Your task to perform on an android device: Open calendar and show me the third week of next month Image 0: 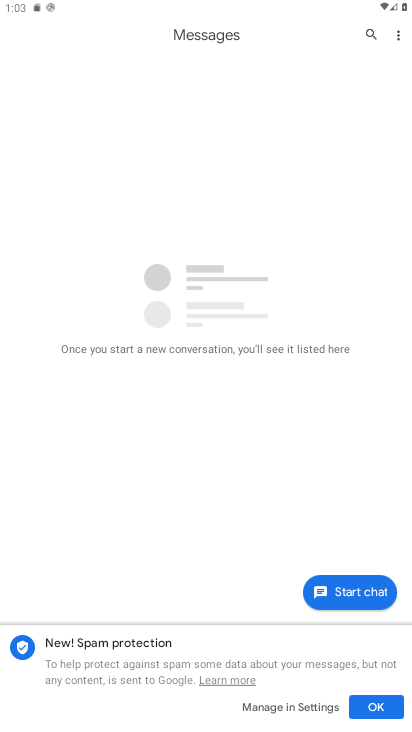
Step 0: press back button
Your task to perform on an android device: Open calendar and show me the third week of next month Image 1: 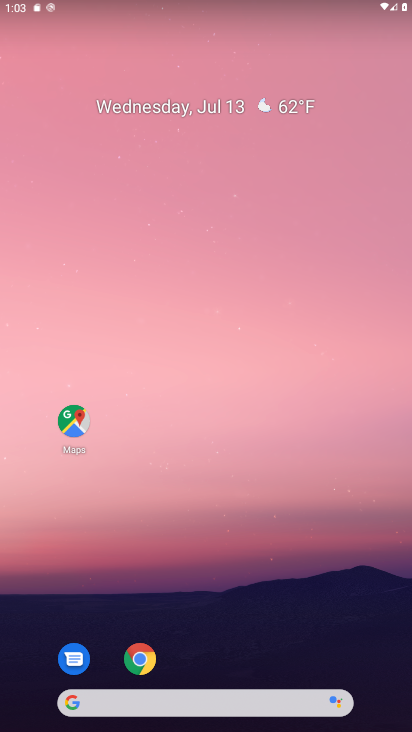
Step 1: click (318, 24)
Your task to perform on an android device: Open calendar and show me the third week of next month Image 2: 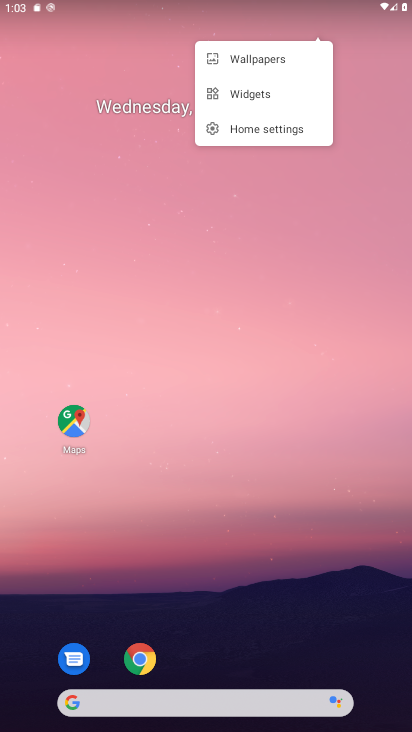
Step 2: click (230, 113)
Your task to perform on an android device: Open calendar and show me the third week of next month Image 3: 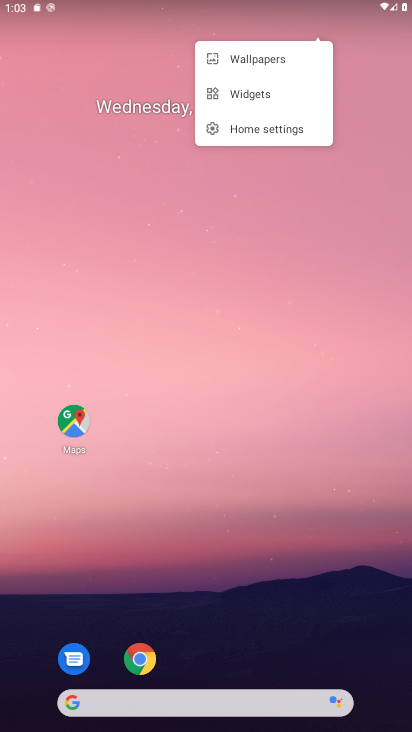
Step 3: drag from (162, 297) to (127, 152)
Your task to perform on an android device: Open calendar and show me the third week of next month Image 4: 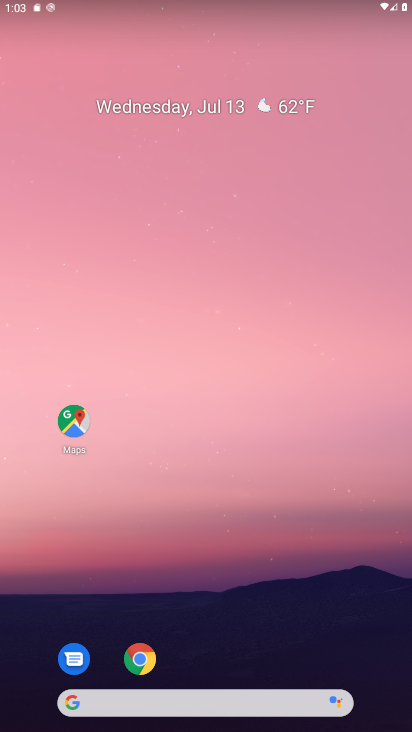
Step 4: drag from (123, 571) to (148, 23)
Your task to perform on an android device: Open calendar and show me the third week of next month Image 5: 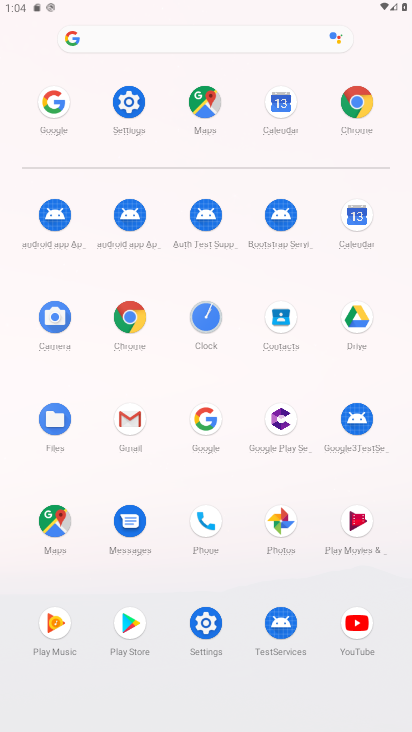
Step 5: click (355, 213)
Your task to perform on an android device: Open calendar and show me the third week of next month Image 6: 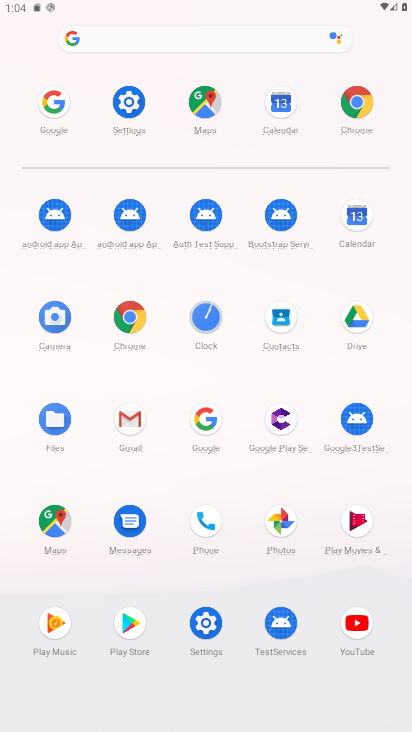
Step 6: click (359, 215)
Your task to perform on an android device: Open calendar and show me the third week of next month Image 7: 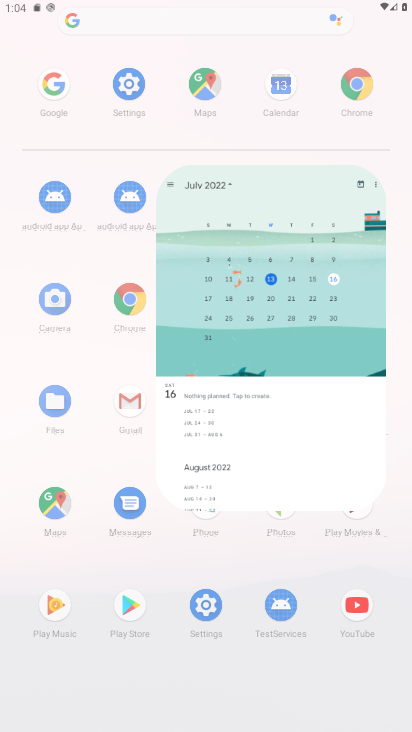
Step 7: click (362, 213)
Your task to perform on an android device: Open calendar and show me the third week of next month Image 8: 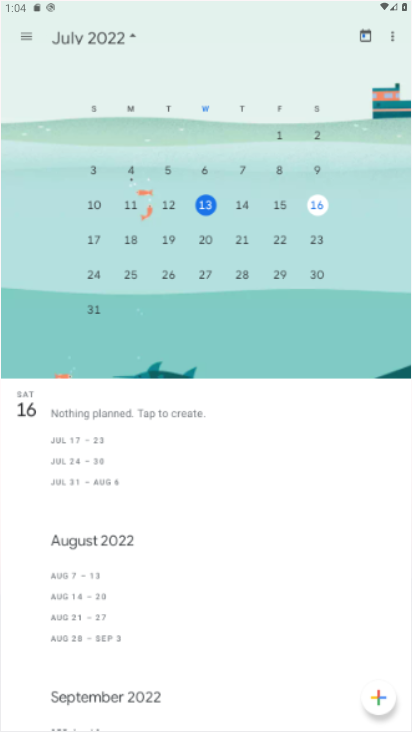
Step 8: click (366, 211)
Your task to perform on an android device: Open calendar and show me the third week of next month Image 9: 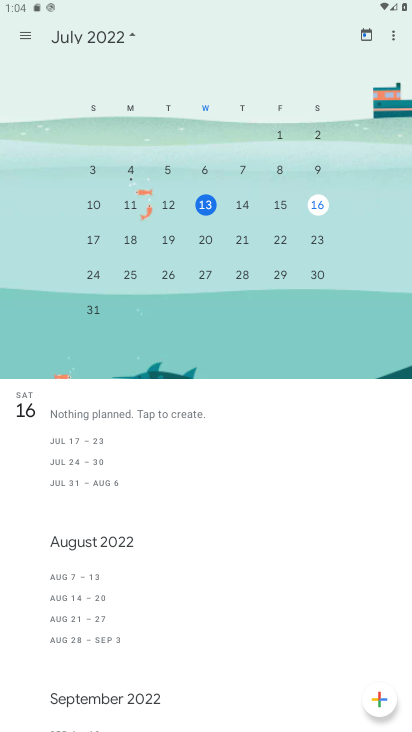
Step 9: click (366, 211)
Your task to perform on an android device: Open calendar and show me the third week of next month Image 10: 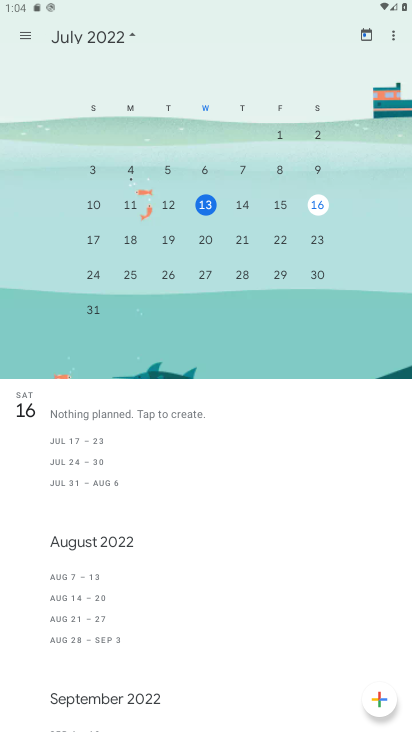
Step 10: click (366, 211)
Your task to perform on an android device: Open calendar and show me the third week of next month Image 11: 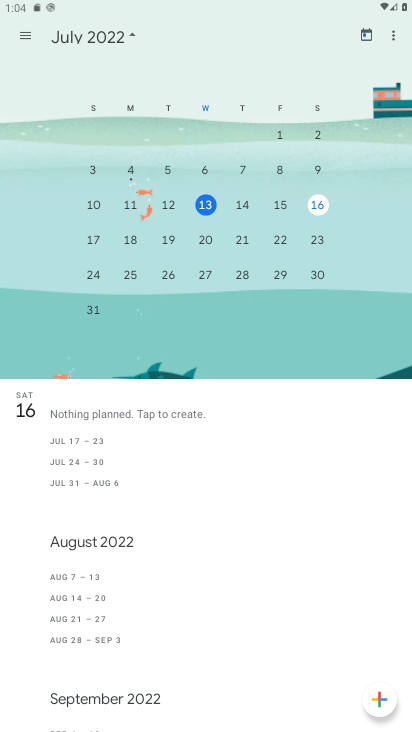
Step 11: drag from (373, 208) to (5, 237)
Your task to perform on an android device: Open calendar and show me the third week of next month Image 12: 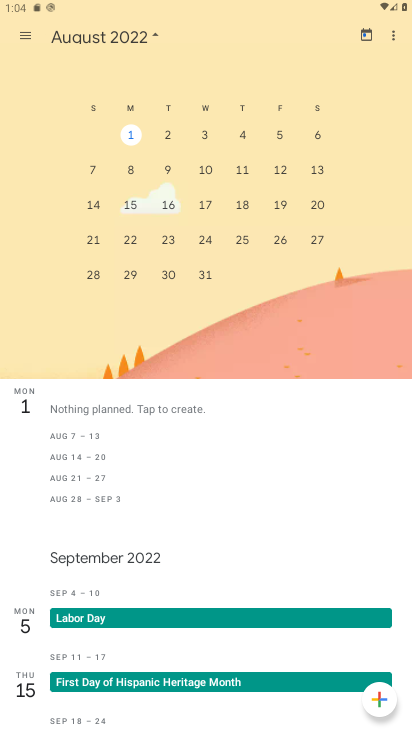
Step 12: drag from (313, 214) to (39, 287)
Your task to perform on an android device: Open calendar and show me the third week of next month Image 13: 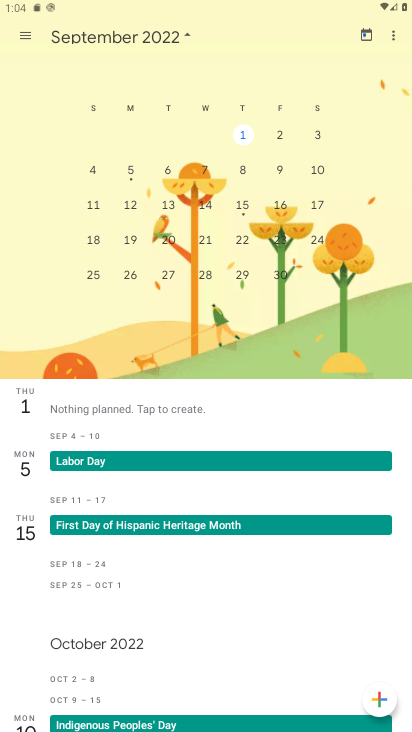
Step 13: drag from (75, 213) to (376, 228)
Your task to perform on an android device: Open calendar and show me the third week of next month Image 14: 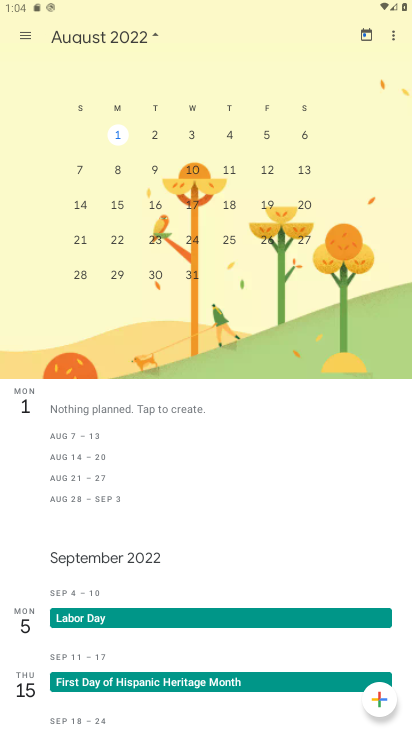
Step 14: drag from (148, 188) to (409, 198)
Your task to perform on an android device: Open calendar and show me the third week of next month Image 15: 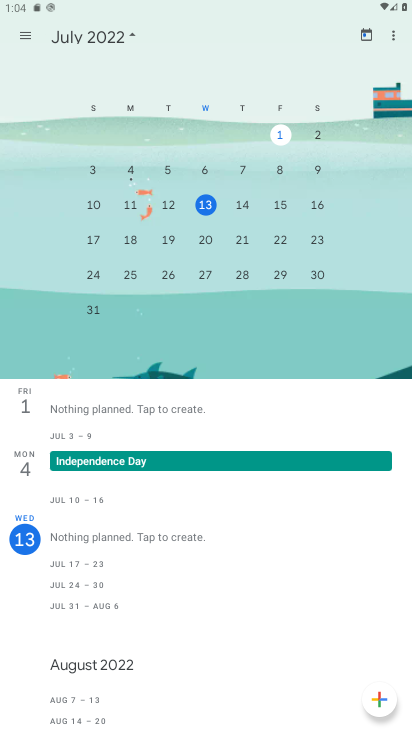
Step 15: drag from (380, 260) to (50, 179)
Your task to perform on an android device: Open calendar and show me the third week of next month Image 16: 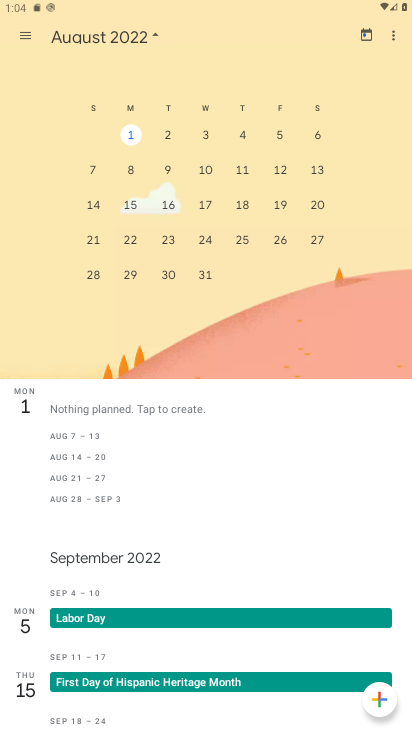
Step 16: click (164, 202)
Your task to perform on an android device: Open calendar and show me the third week of next month Image 17: 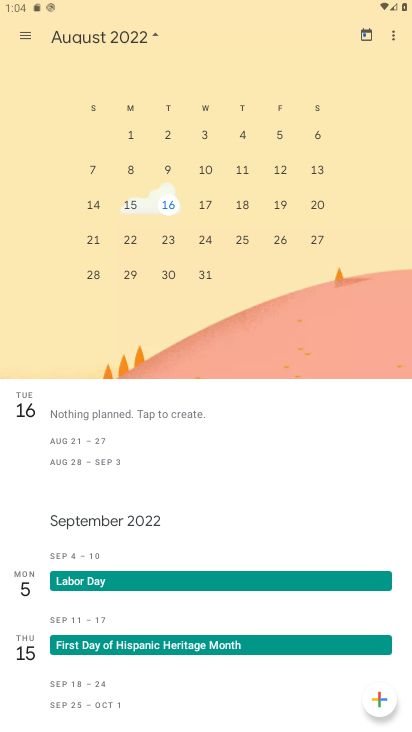
Step 17: click (164, 202)
Your task to perform on an android device: Open calendar and show me the third week of next month Image 18: 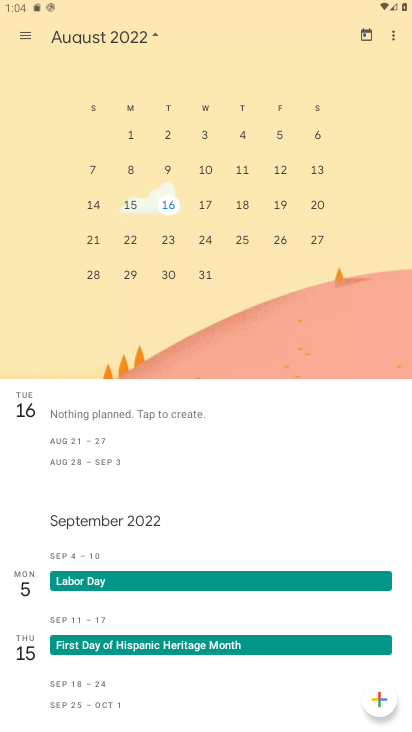
Step 18: click (241, 205)
Your task to perform on an android device: Open calendar and show me the third week of next month Image 19: 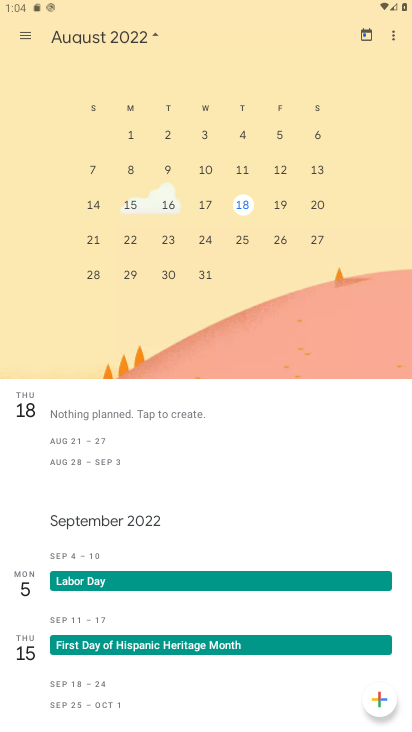
Step 19: click (211, 203)
Your task to perform on an android device: Open calendar and show me the third week of next month Image 20: 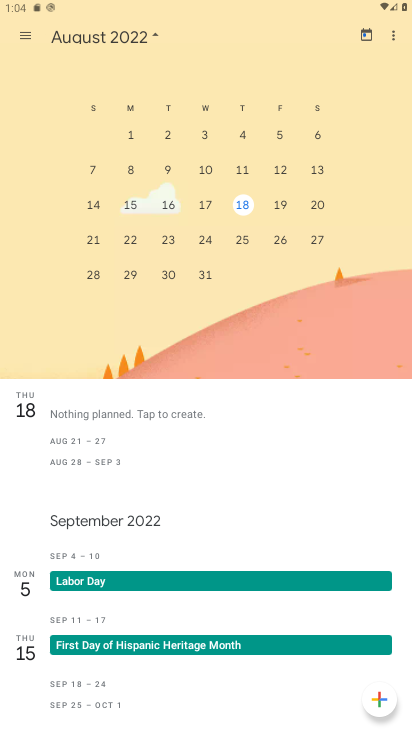
Step 20: click (210, 202)
Your task to perform on an android device: Open calendar and show me the third week of next month Image 21: 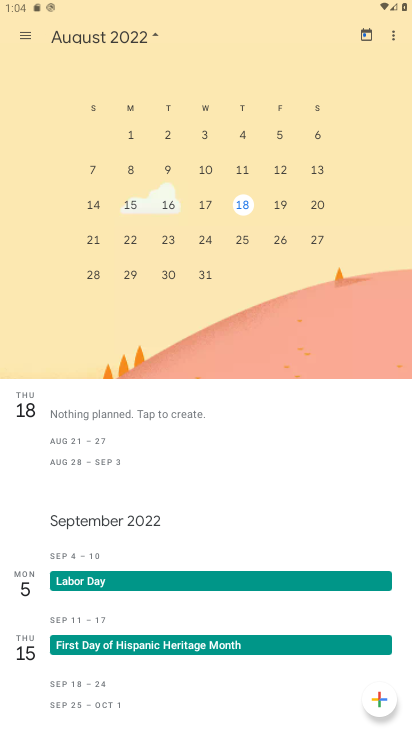
Step 21: click (203, 196)
Your task to perform on an android device: Open calendar and show me the third week of next month Image 22: 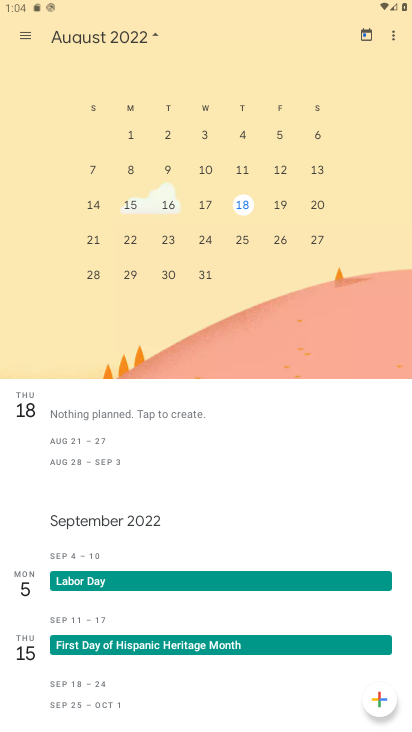
Step 22: click (203, 196)
Your task to perform on an android device: Open calendar and show me the third week of next month Image 23: 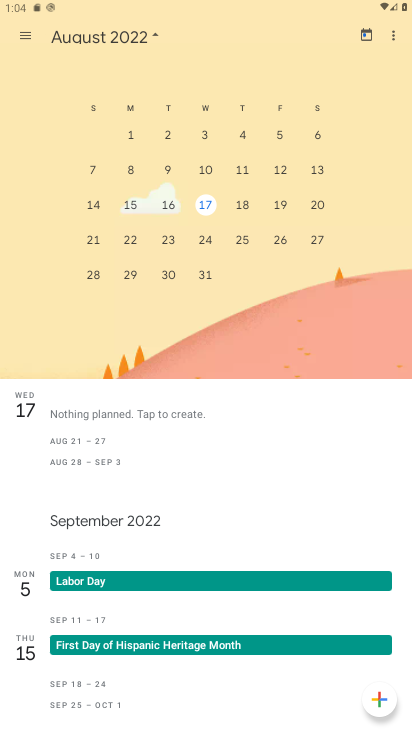
Step 23: click (195, 196)
Your task to perform on an android device: Open calendar and show me the third week of next month Image 24: 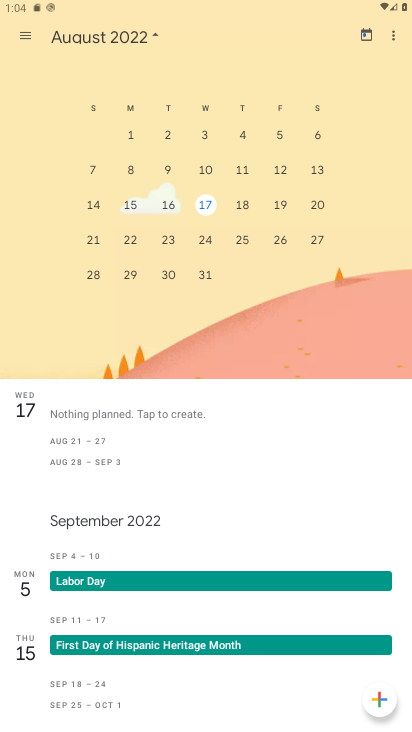
Step 24: click (196, 195)
Your task to perform on an android device: Open calendar and show me the third week of next month Image 25: 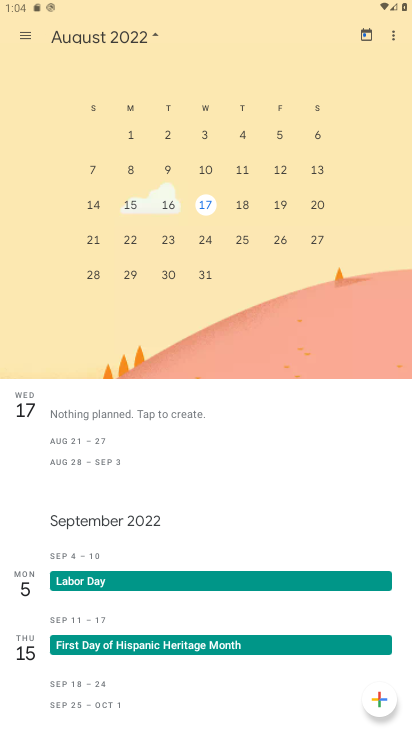
Step 25: click (196, 195)
Your task to perform on an android device: Open calendar and show me the third week of next month Image 26: 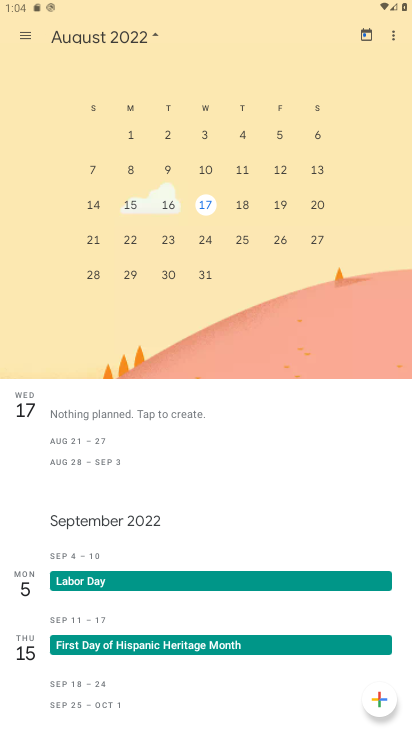
Step 26: task complete